Your task to perform on an android device: Go to privacy settings Image 0: 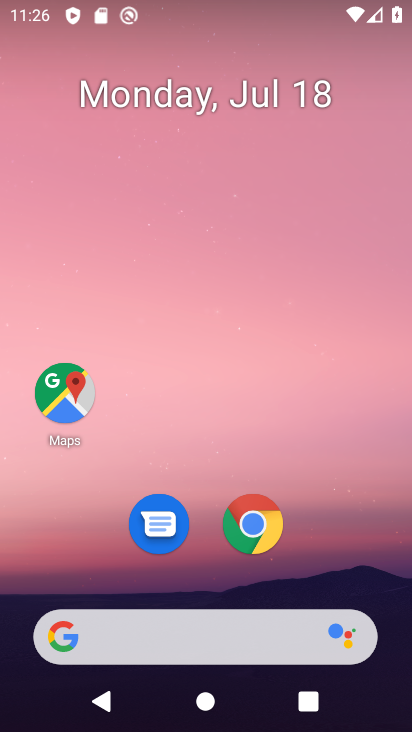
Step 0: drag from (313, 550) to (329, 34)
Your task to perform on an android device: Go to privacy settings Image 1: 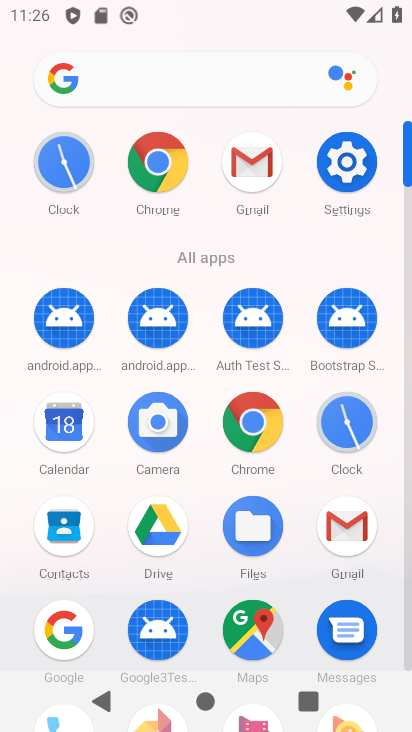
Step 1: click (347, 171)
Your task to perform on an android device: Go to privacy settings Image 2: 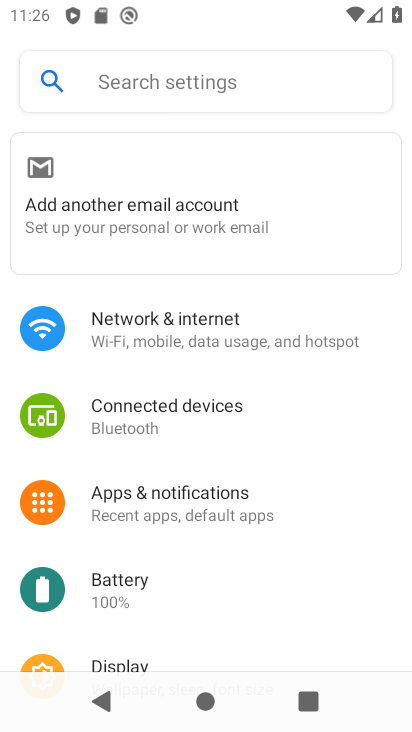
Step 2: drag from (255, 580) to (294, 48)
Your task to perform on an android device: Go to privacy settings Image 3: 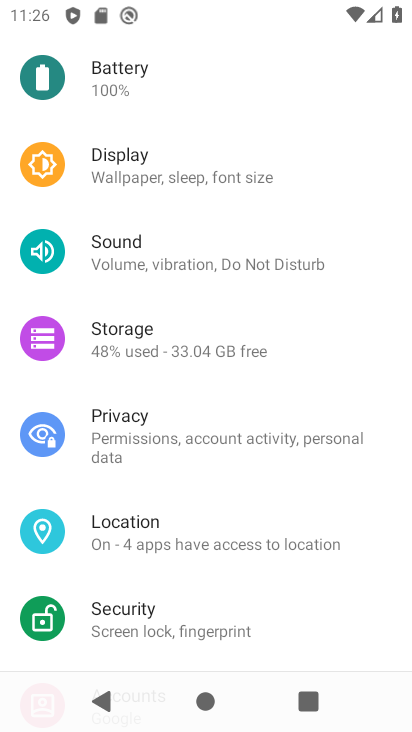
Step 3: click (217, 433)
Your task to perform on an android device: Go to privacy settings Image 4: 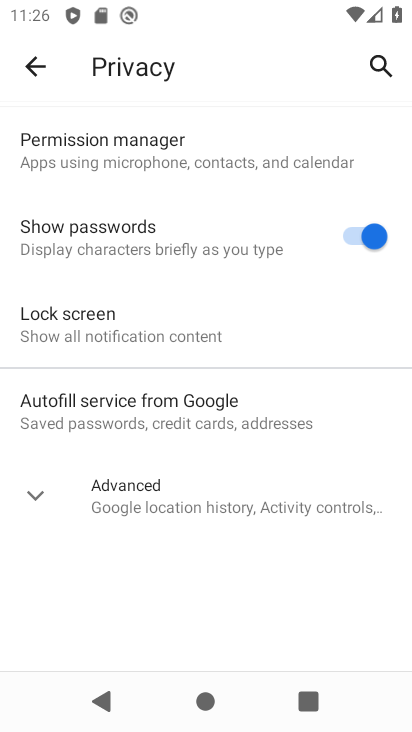
Step 4: click (36, 495)
Your task to perform on an android device: Go to privacy settings Image 5: 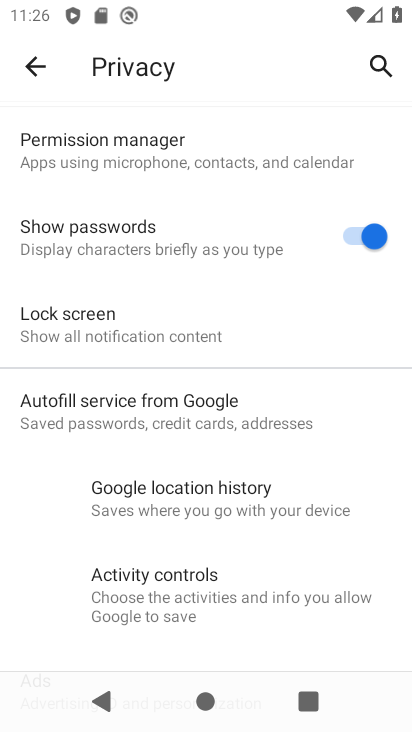
Step 5: task complete